Your task to perform on an android device: Open calendar and show me the first week of next month Image 0: 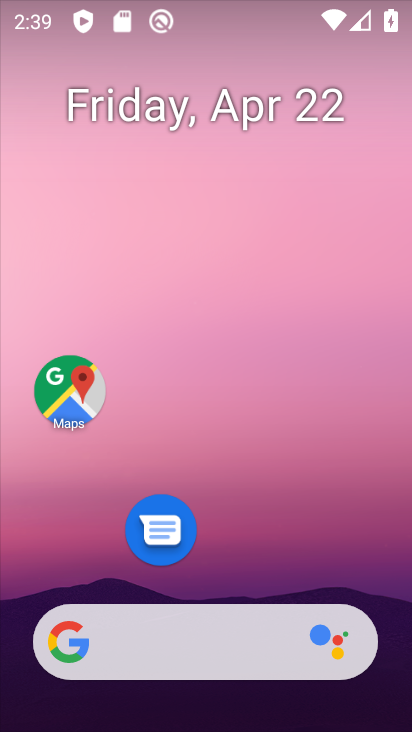
Step 0: drag from (256, 182) to (223, 40)
Your task to perform on an android device: Open calendar and show me the first week of next month Image 1: 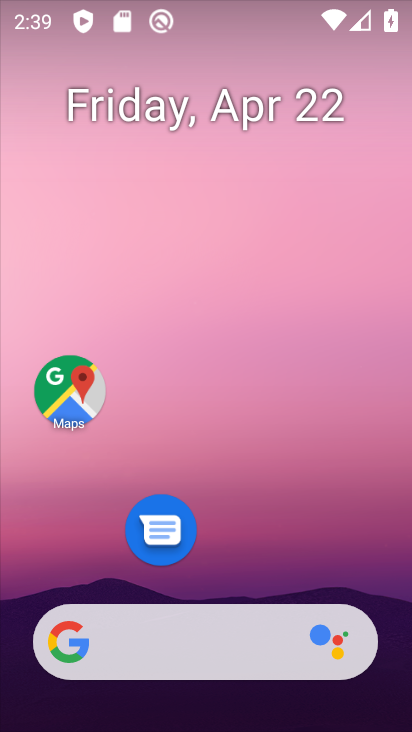
Step 1: drag from (259, 506) to (253, 33)
Your task to perform on an android device: Open calendar and show me the first week of next month Image 2: 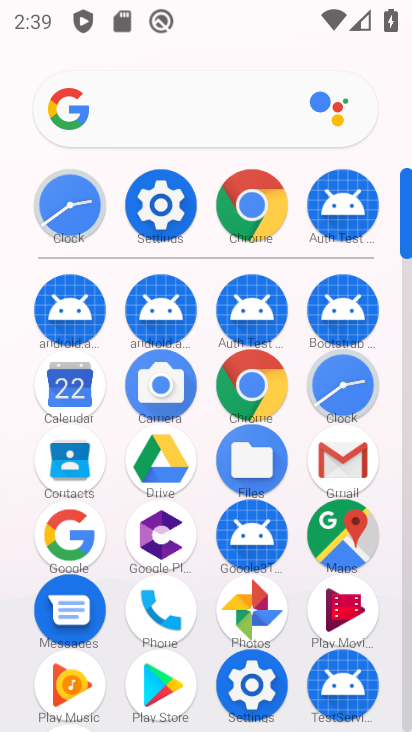
Step 2: click (63, 394)
Your task to perform on an android device: Open calendar and show me the first week of next month Image 3: 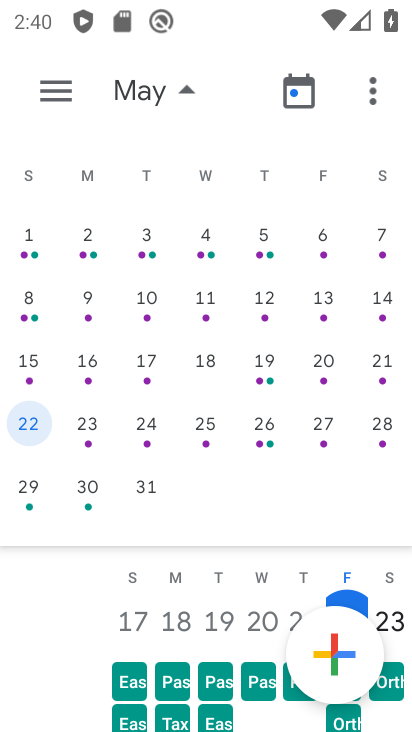
Step 3: click (53, 88)
Your task to perform on an android device: Open calendar and show me the first week of next month Image 4: 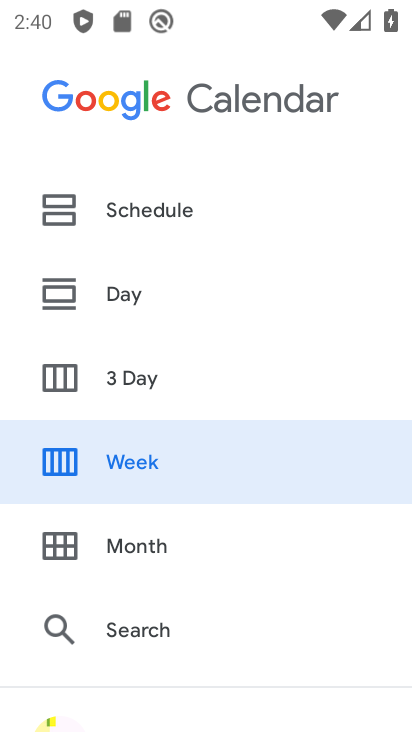
Step 4: click (121, 447)
Your task to perform on an android device: Open calendar and show me the first week of next month Image 5: 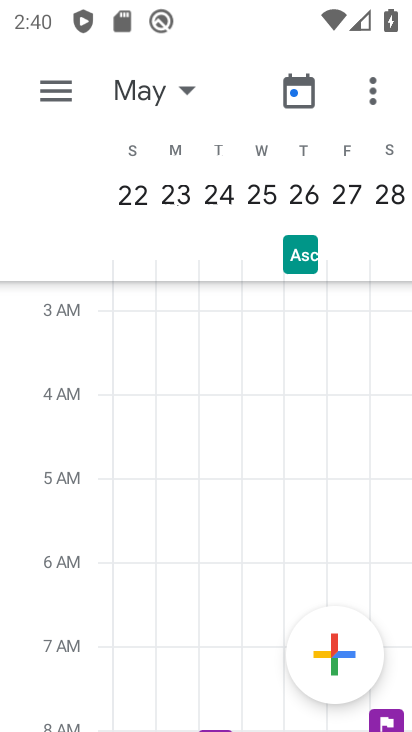
Step 5: click (180, 89)
Your task to perform on an android device: Open calendar and show me the first week of next month Image 6: 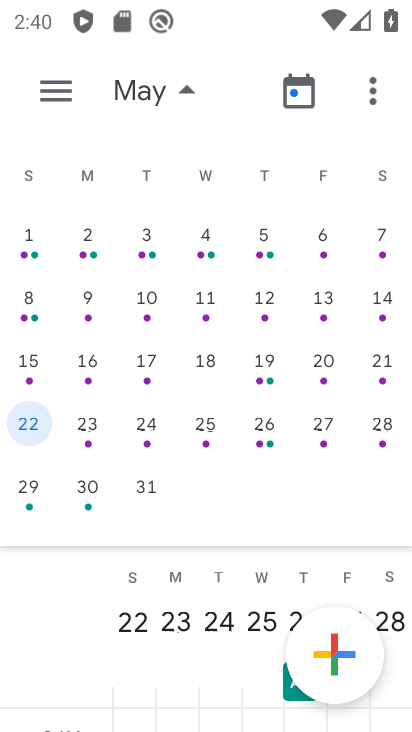
Step 6: click (145, 235)
Your task to perform on an android device: Open calendar and show me the first week of next month Image 7: 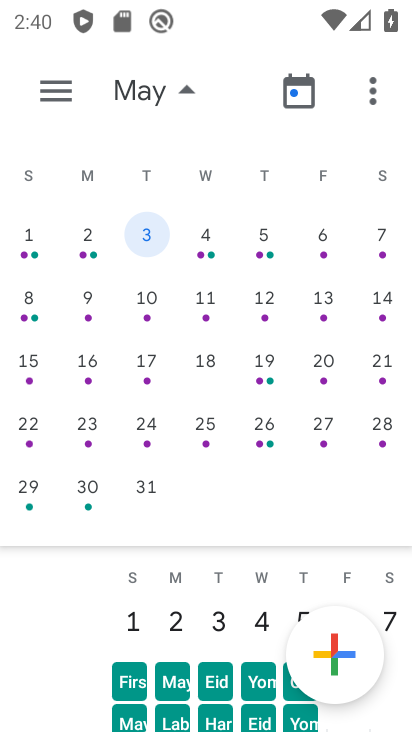
Step 7: task complete